Your task to perform on an android device: toggle notifications settings in the gmail app Image 0: 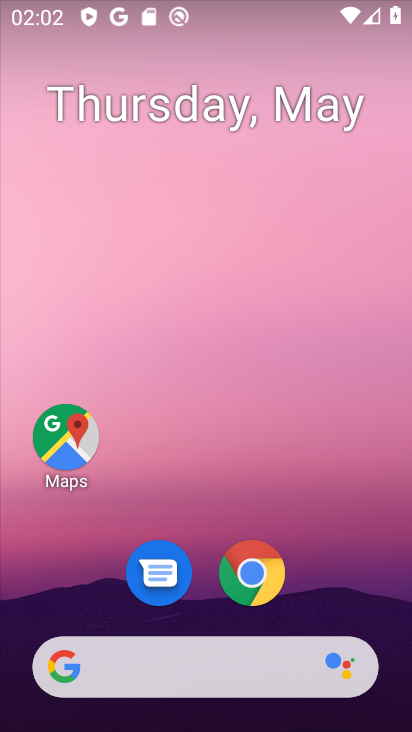
Step 0: drag from (338, 597) to (354, 307)
Your task to perform on an android device: toggle notifications settings in the gmail app Image 1: 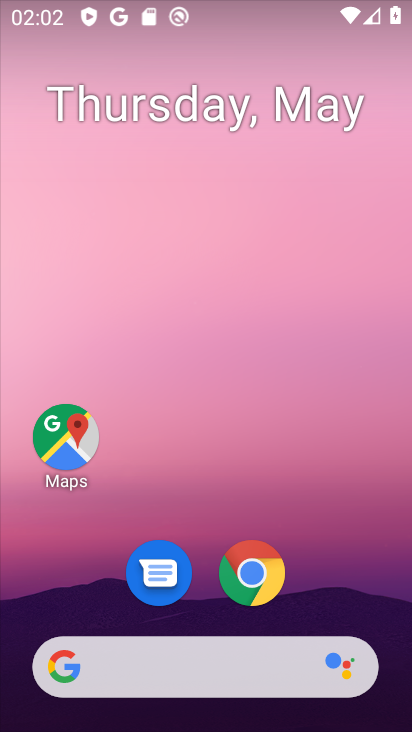
Step 1: drag from (303, 586) to (309, 256)
Your task to perform on an android device: toggle notifications settings in the gmail app Image 2: 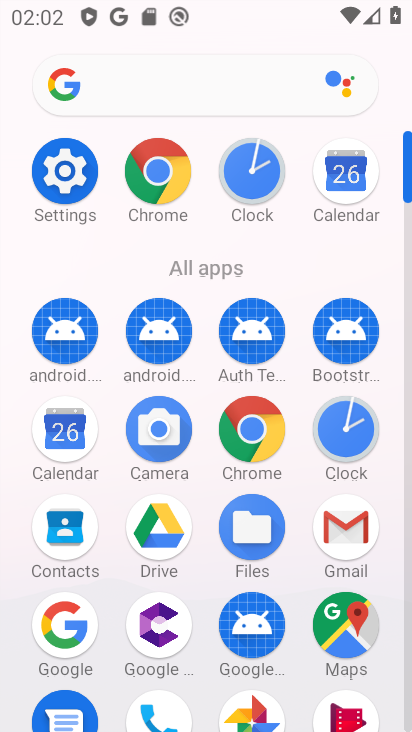
Step 2: click (335, 524)
Your task to perform on an android device: toggle notifications settings in the gmail app Image 3: 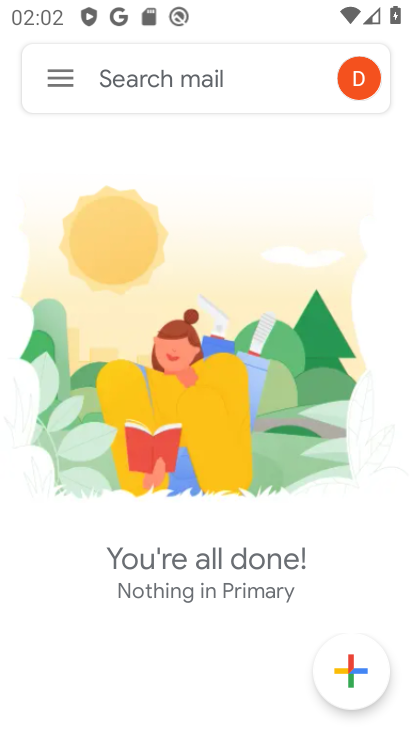
Step 3: click (56, 83)
Your task to perform on an android device: toggle notifications settings in the gmail app Image 4: 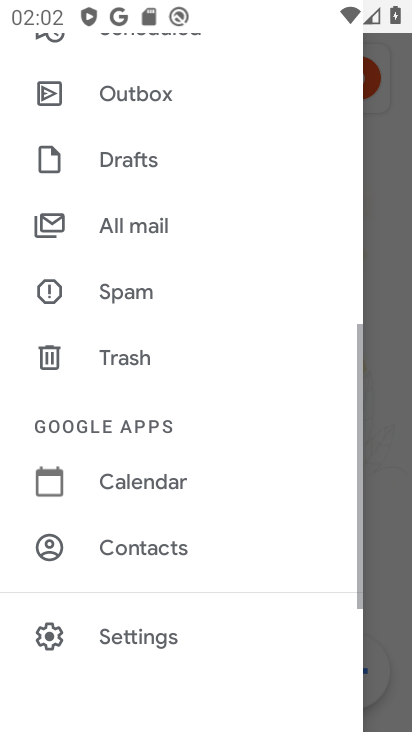
Step 4: click (135, 641)
Your task to perform on an android device: toggle notifications settings in the gmail app Image 5: 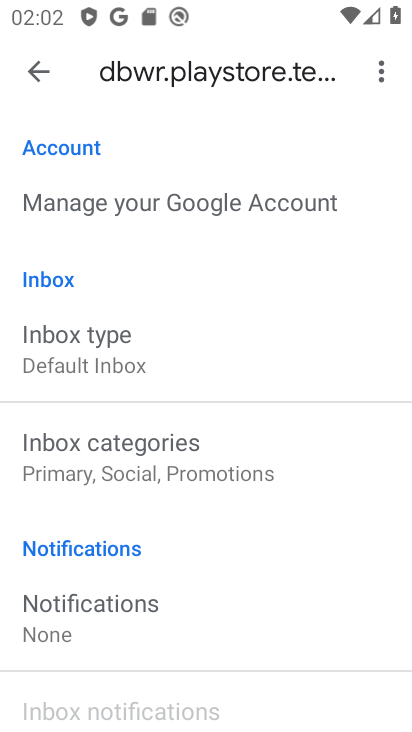
Step 5: click (112, 628)
Your task to perform on an android device: toggle notifications settings in the gmail app Image 6: 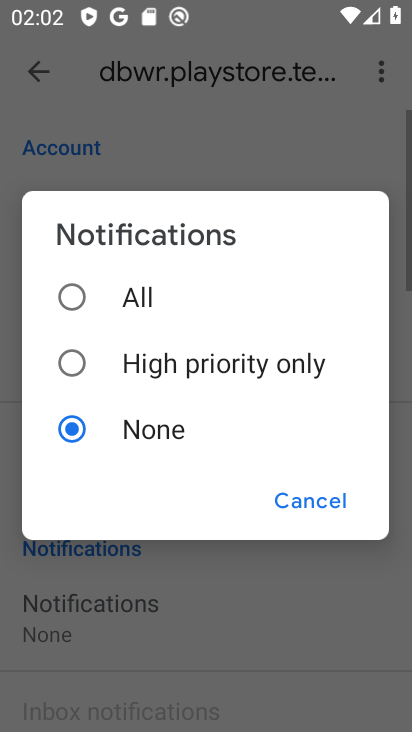
Step 6: click (105, 302)
Your task to perform on an android device: toggle notifications settings in the gmail app Image 7: 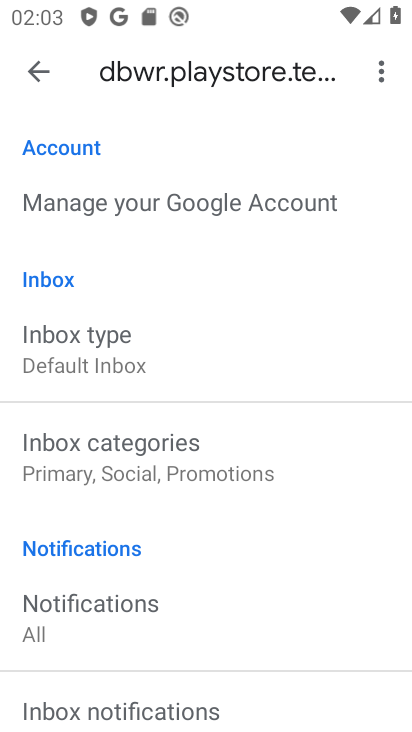
Step 7: task complete